Your task to perform on an android device: View the shopping cart on ebay. Image 0: 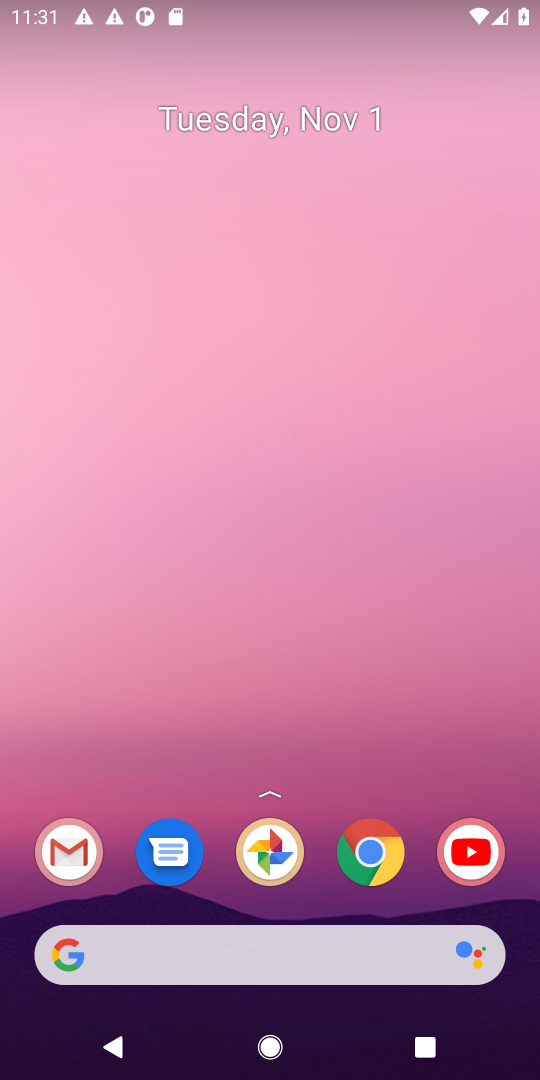
Step 0: click (65, 960)
Your task to perform on an android device: View the shopping cart on ebay. Image 1: 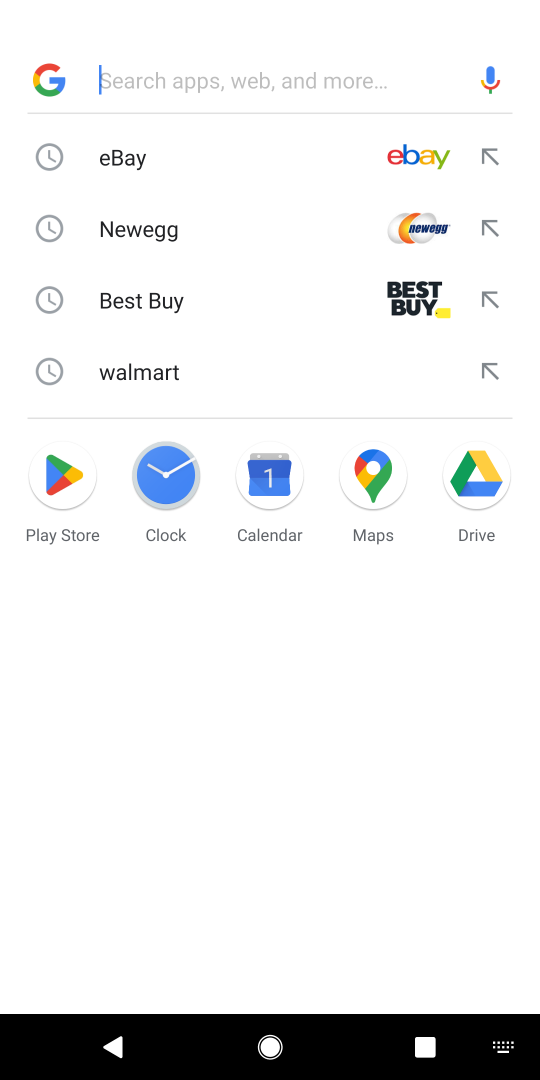
Step 1: click (412, 154)
Your task to perform on an android device: View the shopping cart on ebay. Image 2: 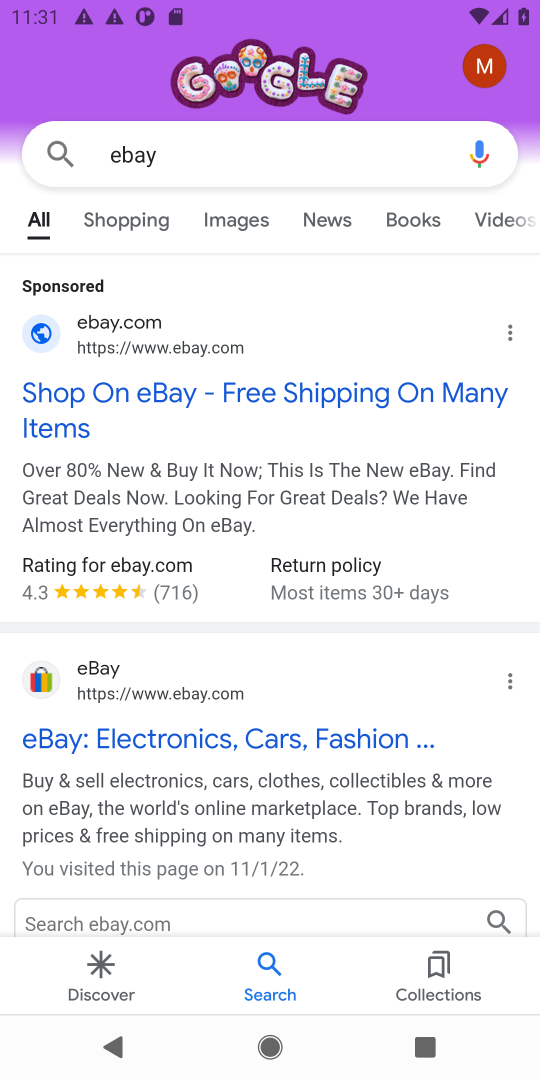
Step 2: click (117, 745)
Your task to perform on an android device: View the shopping cart on ebay. Image 3: 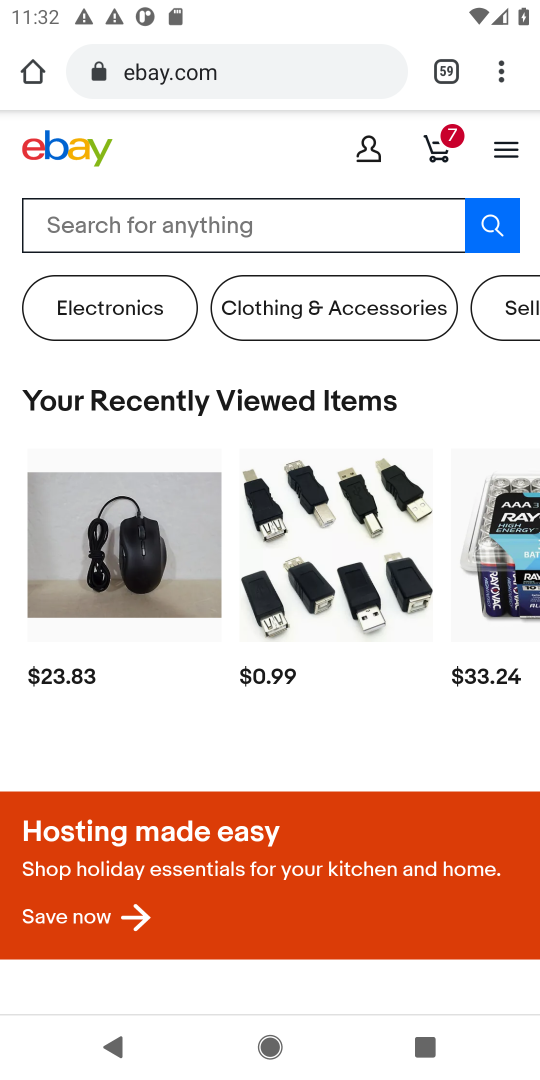
Step 3: click (446, 152)
Your task to perform on an android device: View the shopping cart on ebay. Image 4: 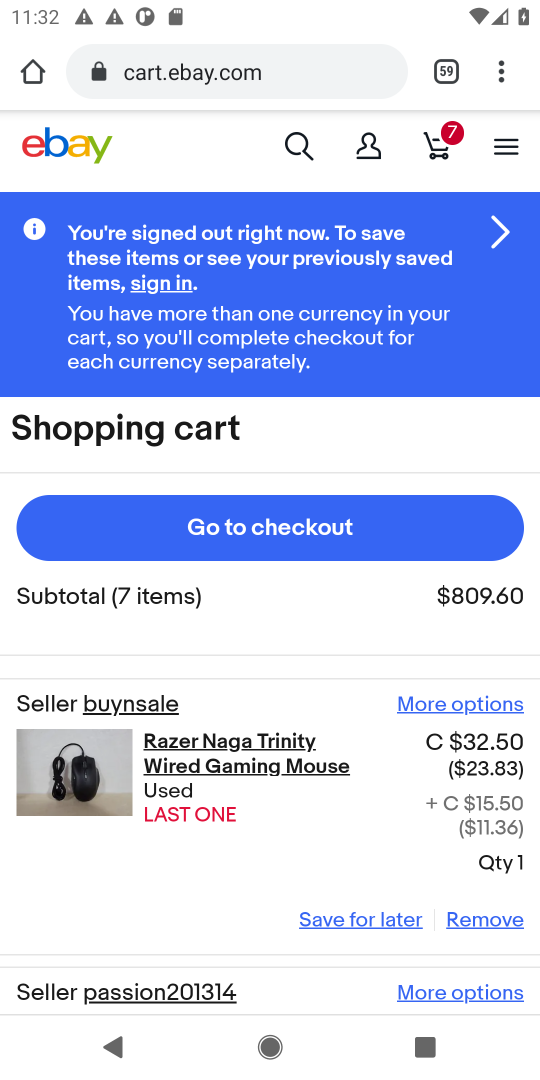
Step 4: task complete